Your task to perform on an android device: change the clock display to show seconds Image 0: 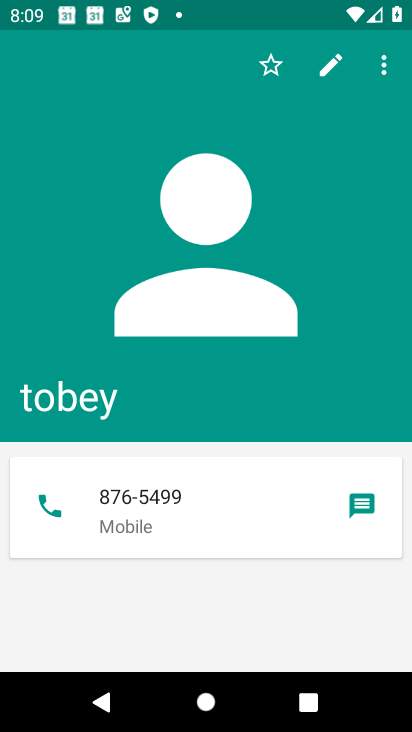
Step 0: press home button
Your task to perform on an android device: change the clock display to show seconds Image 1: 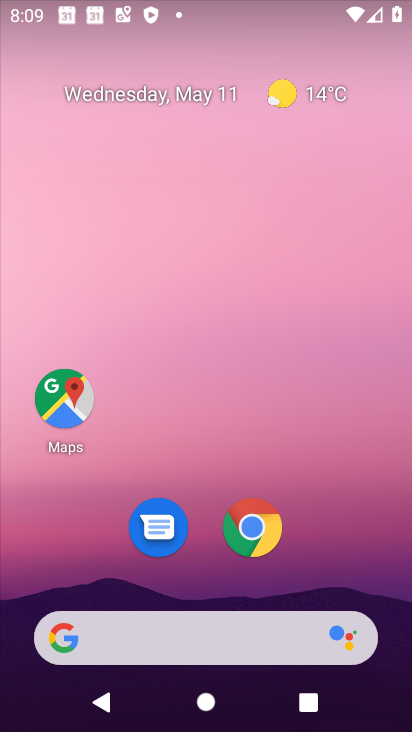
Step 1: drag from (213, 589) to (234, 266)
Your task to perform on an android device: change the clock display to show seconds Image 2: 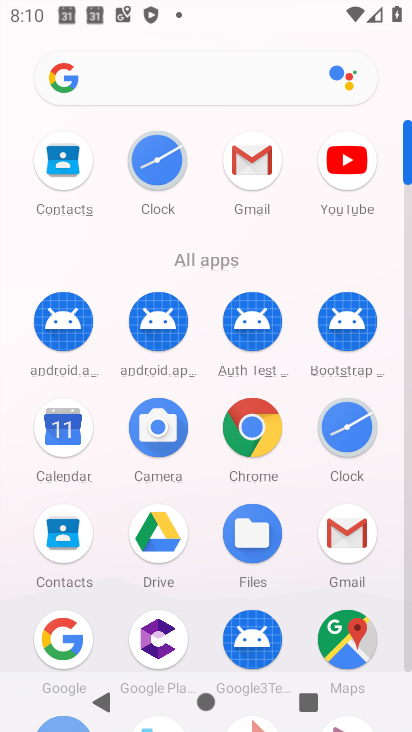
Step 2: click (139, 185)
Your task to perform on an android device: change the clock display to show seconds Image 3: 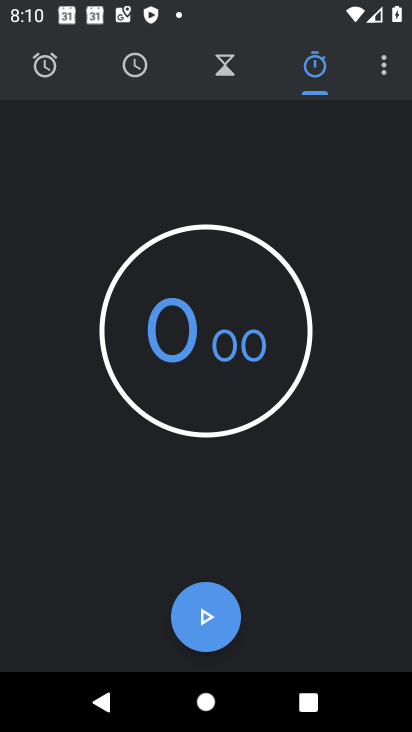
Step 3: click (387, 76)
Your task to perform on an android device: change the clock display to show seconds Image 4: 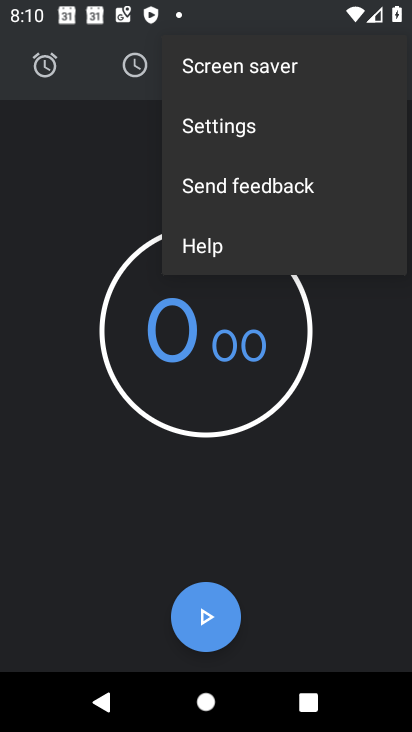
Step 4: click (202, 112)
Your task to perform on an android device: change the clock display to show seconds Image 5: 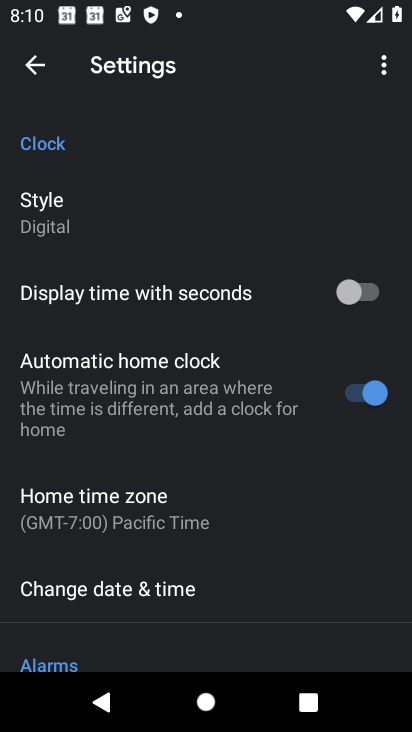
Step 5: click (382, 288)
Your task to perform on an android device: change the clock display to show seconds Image 6: 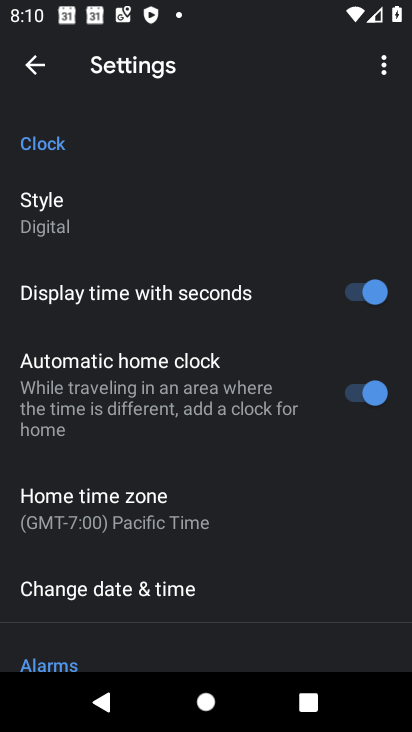
Step 6: task complete